Your task to perform on an android device: Open the calendar app, open the side menu, and click the "Day" option Image 0: 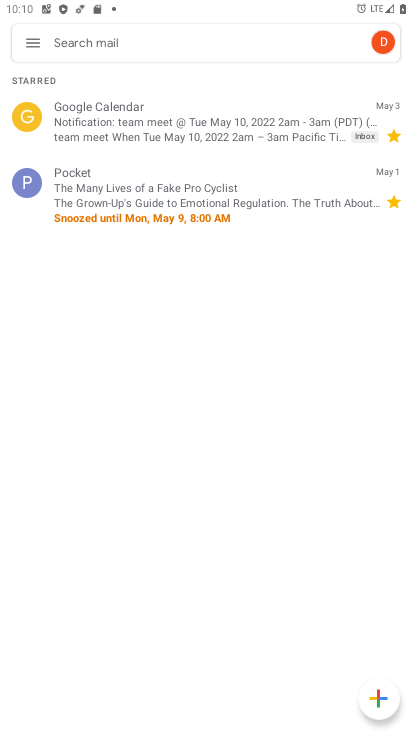
Step 0: press home button
Your task to perform on an android device: Open the calendar app, open the side menu, and click the "Day" option Image 1: 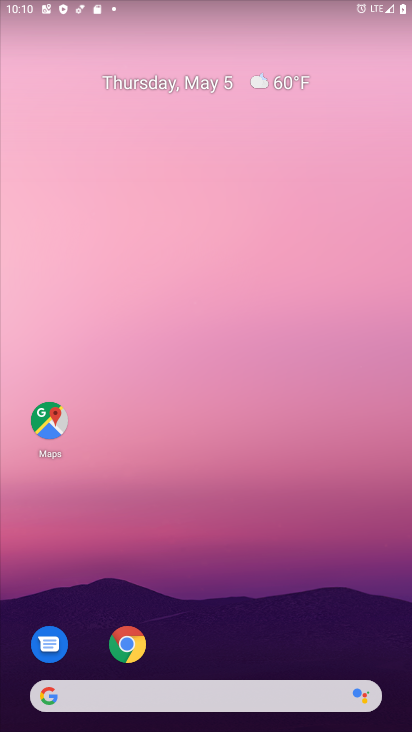
Step 1: drag from (243, 570) to (252, 142)
Your task to perform on an android device: Open the calendar app, open the side menu, and click the "Day" option Image 2: 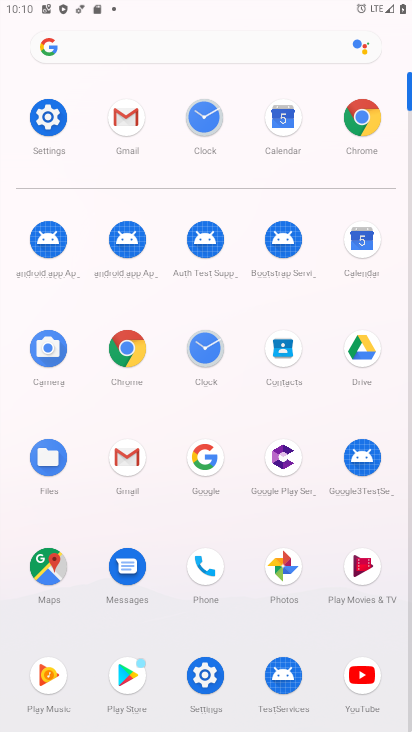
Step 2: click (365, 238)
Your task to perform on an android device: Open the calendar app, open the side menu, and click the "Day" option Image 3: 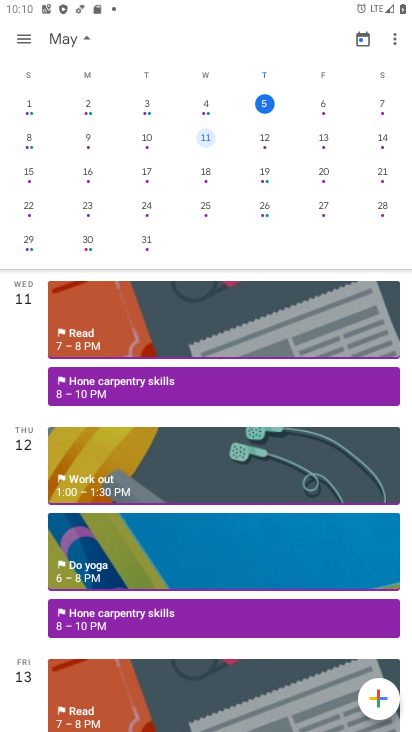
Step 3: click (20, 41)
Your task to perform on an android device: Open the calendar app, open the side menu, and click the "Day" option Image 4: 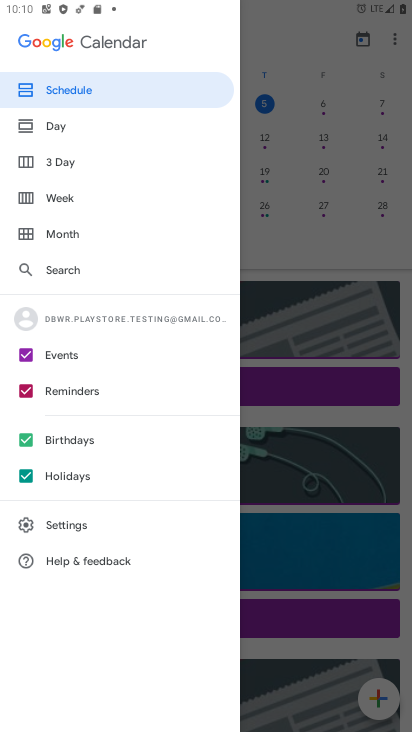
Step 4: click (88, 119)
Your task to perform on an android device: Open the calendar app, open the side menu, and click the "Day" option Image 5: 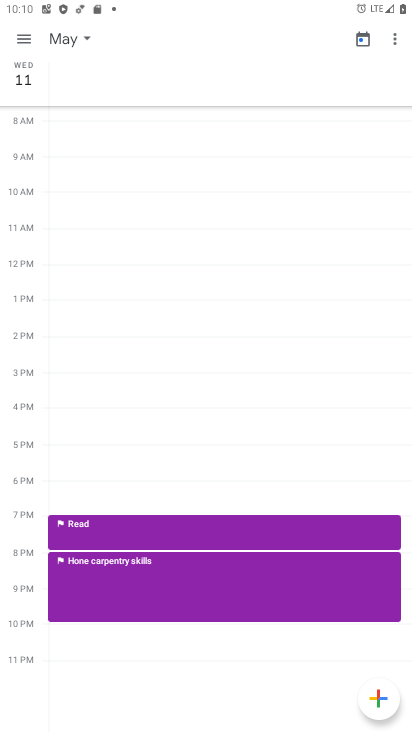
Step 5: task complete